Your task to perform on an android device: set an alarm Image 0: 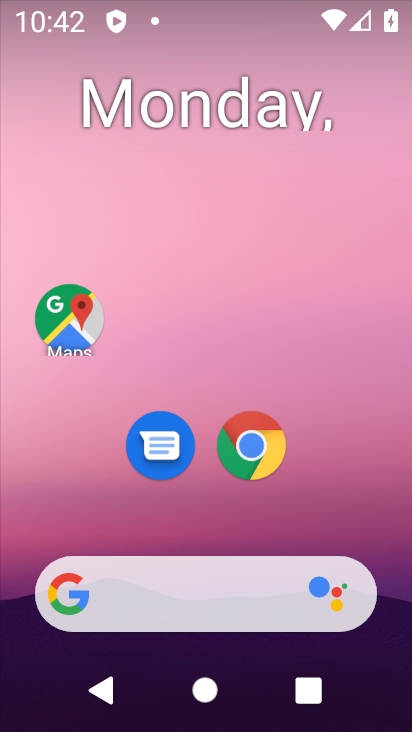
Step 0: drag from (311, 517) to (177, 82)
Your task to perform on an android device: set an alarm Image 1: 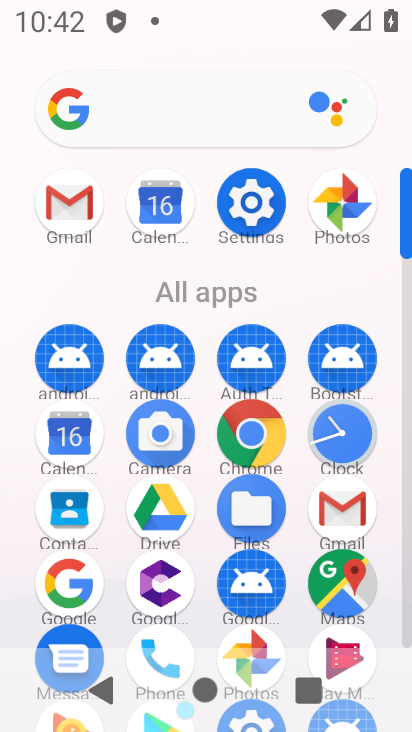
Step 1: click (359, 437)
Your task to perform on an android device: set an alarm Image 2: 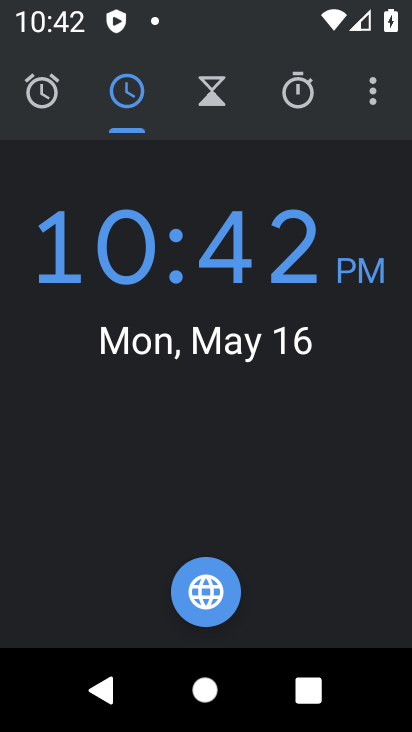
Step 2: click (47, 103)
Your task to perform on an android device: set an alarm Image 3: 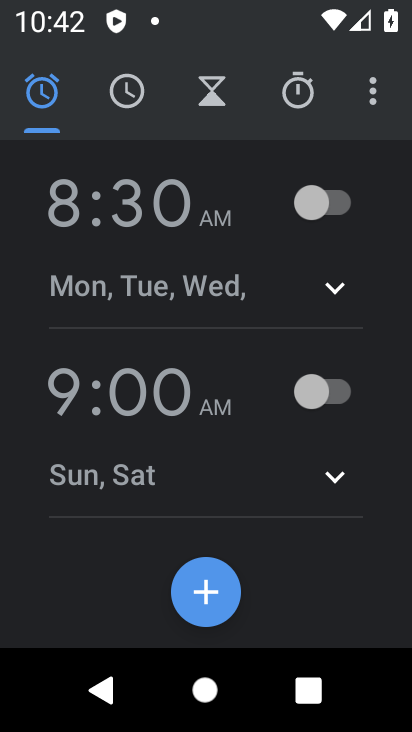
Step 3: click (195, 604)
Your task to perform on an android device: set an alarm Image 4: 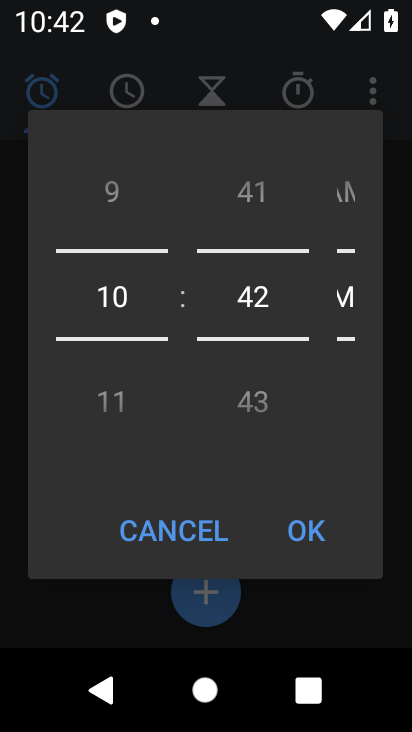
Step 4: click (307, 526)
Your task to perform on an android device: set an alarm Image 5: 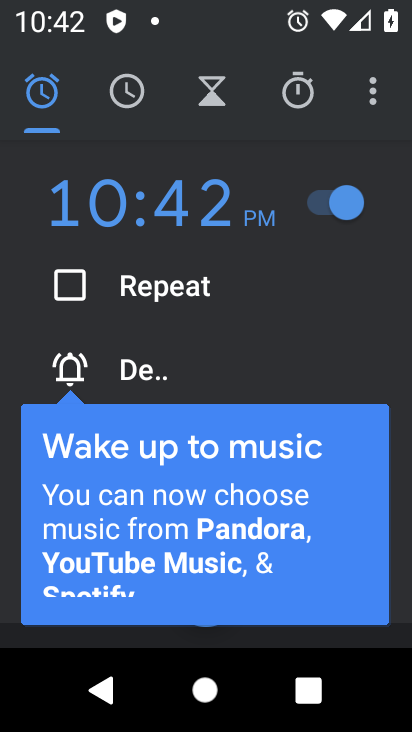
Step 5: click (403, 618)
Your task to perform on an android device: set an alarm Image 6: 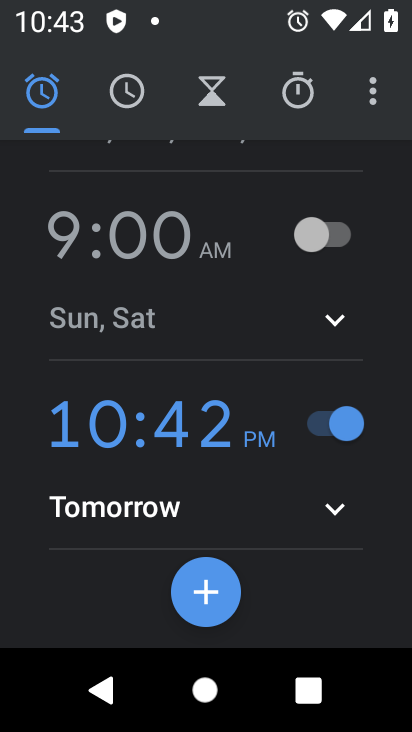
Step 6: task complete